Your task to perform on an android device: Open calendar and show me the third week of next month Image 0: 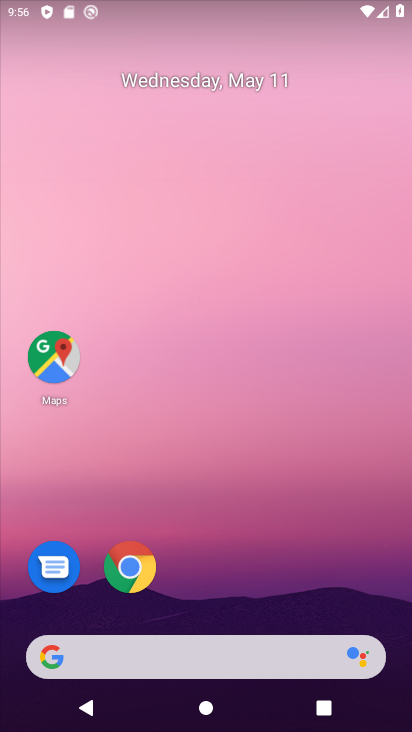
Step 0: drag from (303, 576) to (347, 182)
Your task to perform on an android device: Open calendar and show me the third week of next month Image 1: 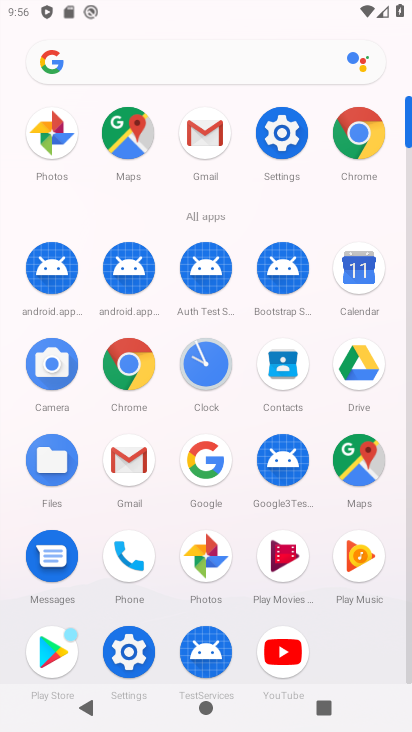
Step 1: click (355, 276)
Your task to perform on an android device: Open calendar and show me the third week of next month Image 2: 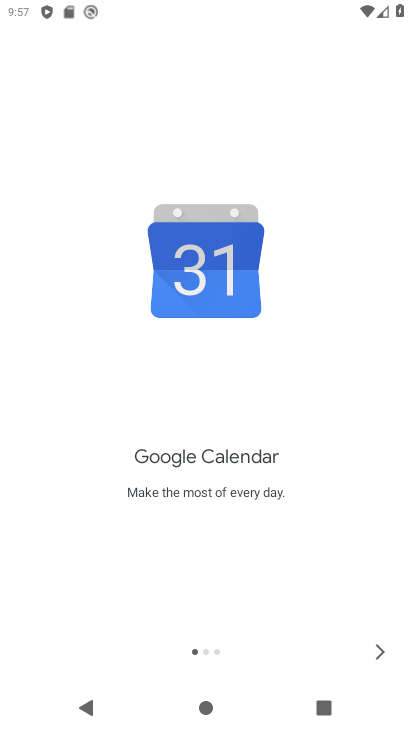
Step 2: click (376, 658)
Your task to perform on an android device: Open calendar and show me the third week of next month Image 3: 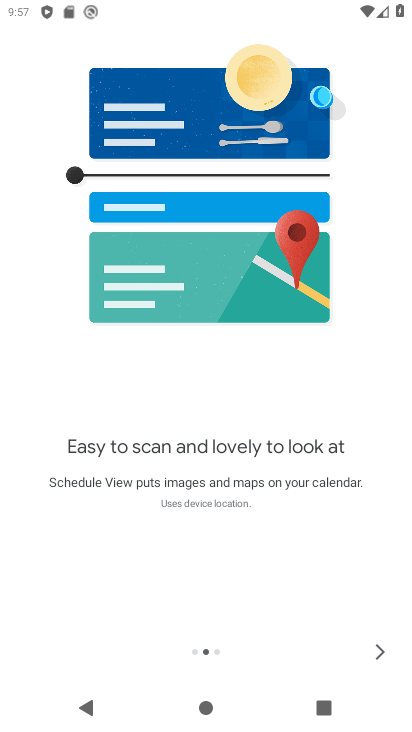
Step 3: click (376, 658)
Your task to perform on an android device: Open calendar and show me the third week of next month Image 4: 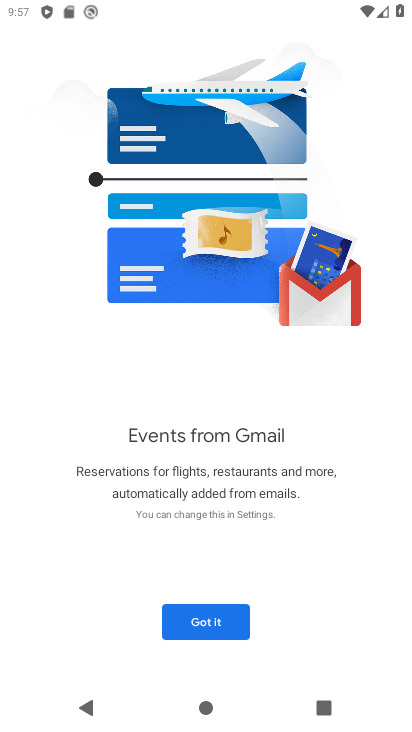
Step 4: click (232, 617)
Your task to perform on an android device: Open calendar and show me the third week of next month Image 5: 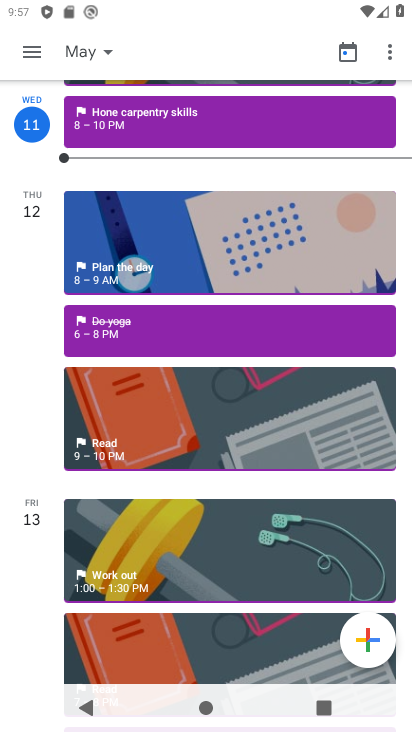
Step 5: click (73, 57)
Your task to perform on an android device: Open calendar and show me the third week of next month Image 6: 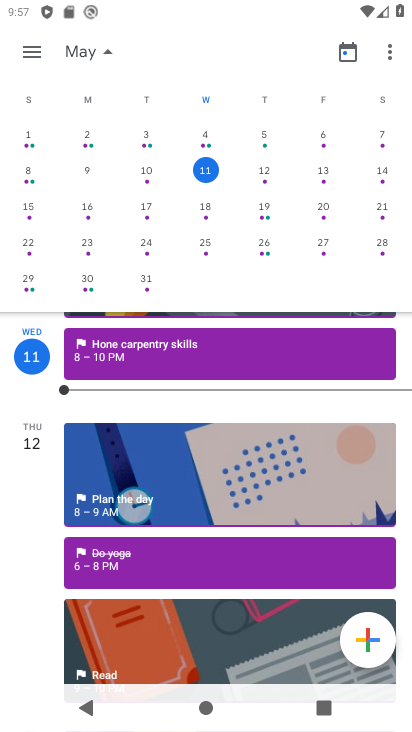
Step 6: drag from (318, 206) to (7, 213)
Your task to perform on an android device: Open calendar and show me the third week of next month Image 7: 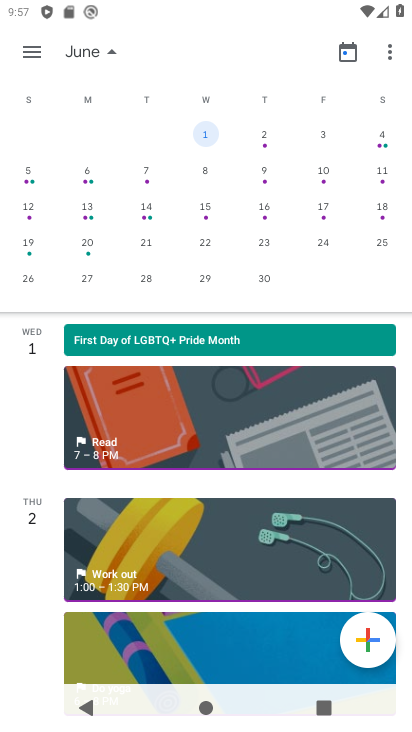
Step 7: click (34, 208)
Your task to perform on an android device: Open calendar and show me the third week of next month Image 8: 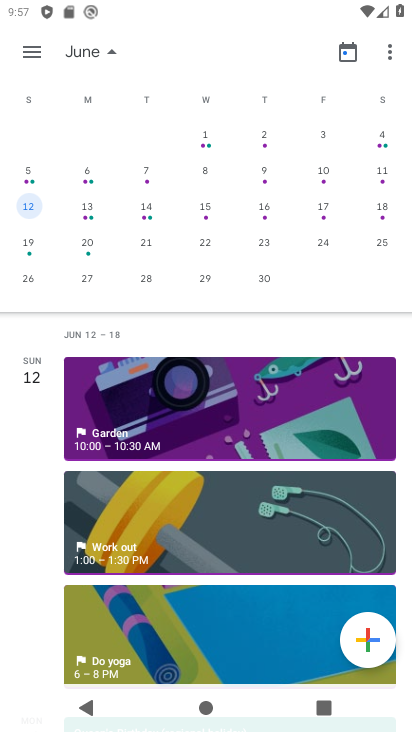
Step 8: click (86, 220)
Your task to perform on an android device: Open calendar and show me the third week of next month Image 9: 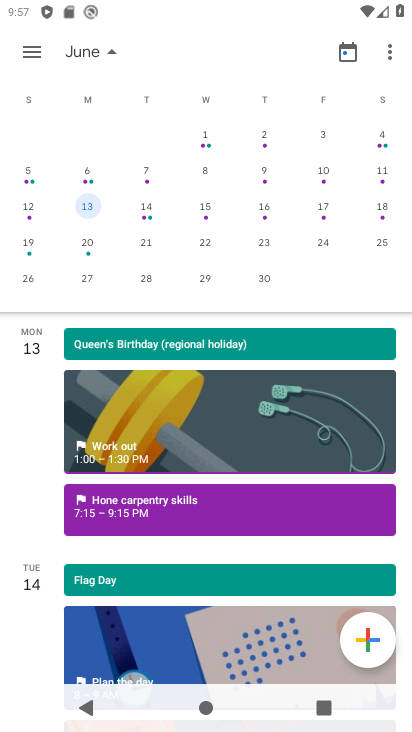
Step 9: click (153, 222)
Your task to perform on an android device: Open calendar and show me the third week of next month Image 10: 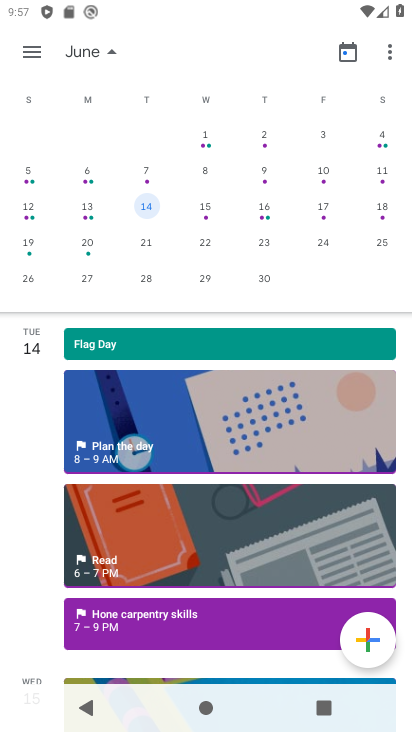
Step 10: click (188, 223)
Your task to perform on an android device: Open calendar and show me the third week of next month Image 11: 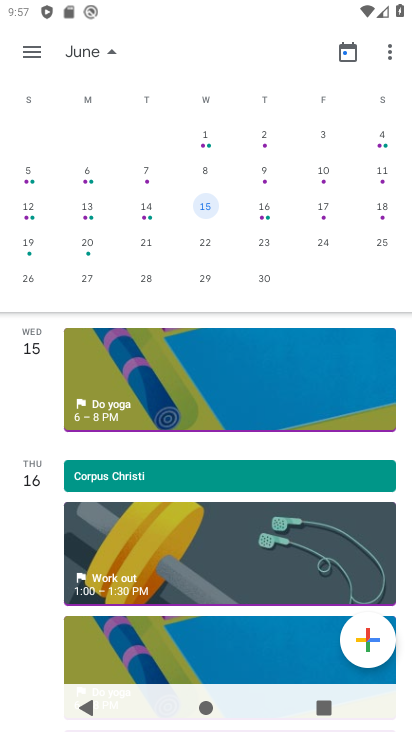
Step 11: click (266, 207)
Your task to perform on an android device: Open calendar and show me the third week of next month Image 12: 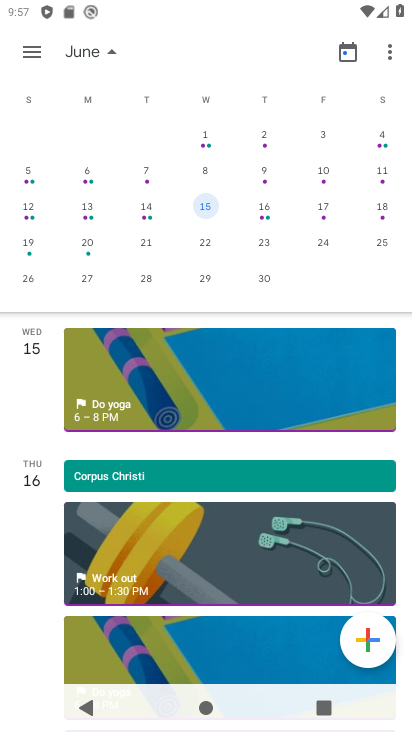
Step 12: click (328, 212)
Your task to perform on an android device: Open calendar and show me the third week of next month Image 13: 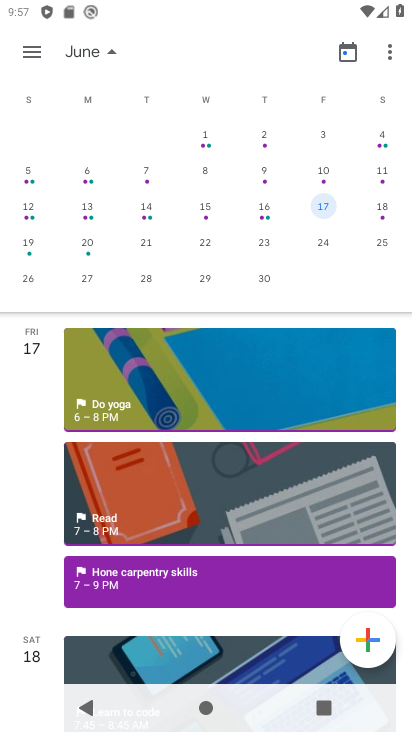
Step 13: task complete